Your task to perform on an android device: What's the weather? Image 0: 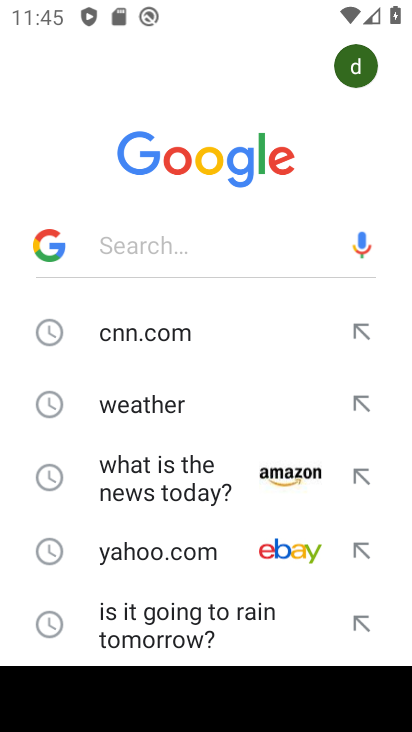
Step 0: task complete